Your task to perform on an android device: Go to eBay Image 0: 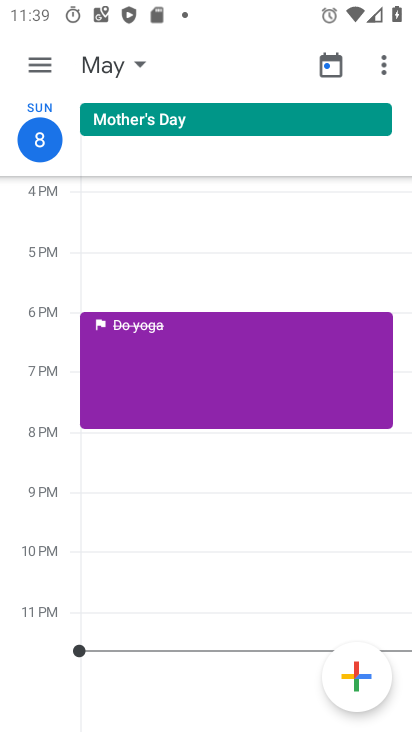
Step 0: press home button
Your task to perform on an android device: Go to eBay Image 1: 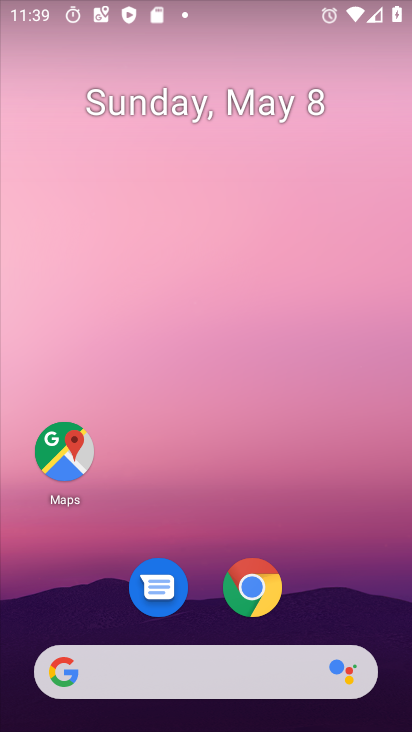
Step 1: drag from (358, 628) to (190, 252)
Your task to perform on an android device: Go to eBay Image 2: 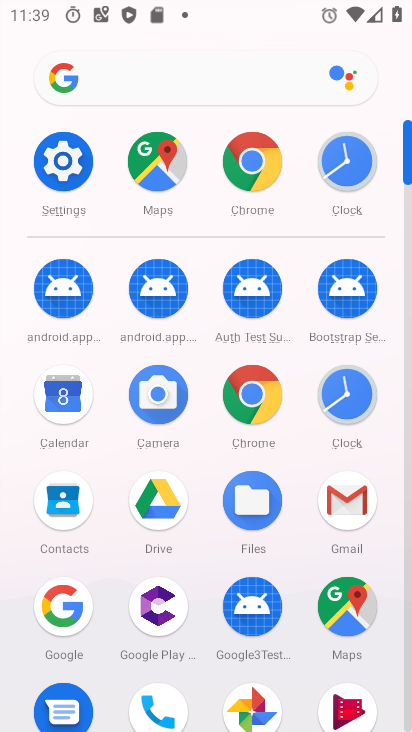
Step 2: click (255, 156)
Your task to perform on an android device: Go to eBay Image 3: 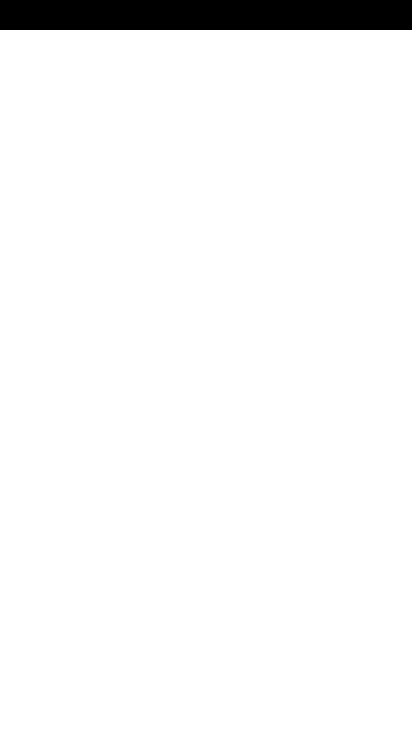
Step 3: click (255, 156)
Your task to perform on an android device: Go to eBay Image 4: 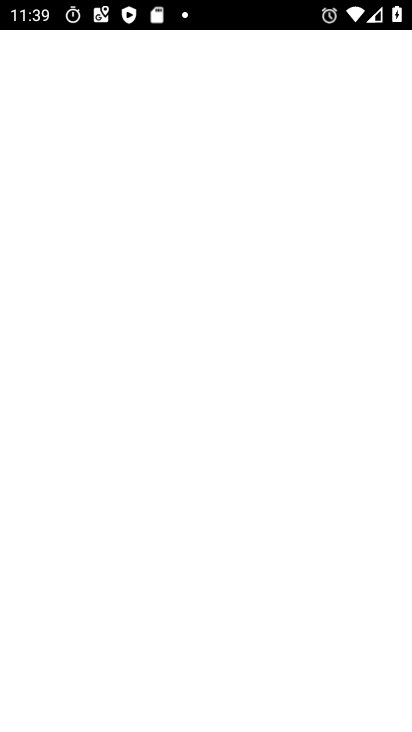
Step 4: click (254, 156)
Your task to perform on an android device: Go to eBay Image 5: 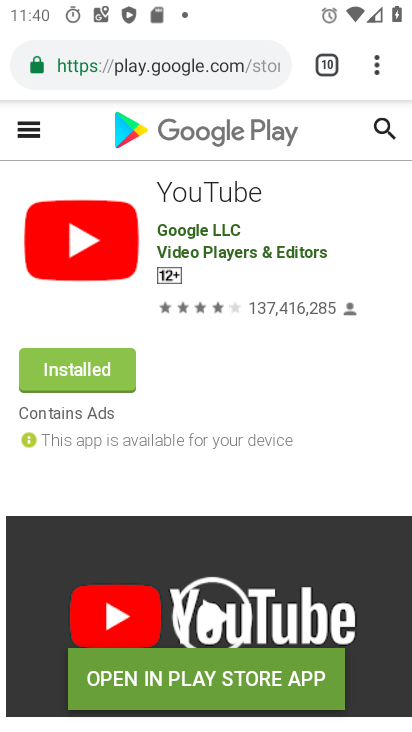
Step 5: drag from (381, 66) to (153, 140)
Your task to perform on an android device: Go to eBay Image 6: 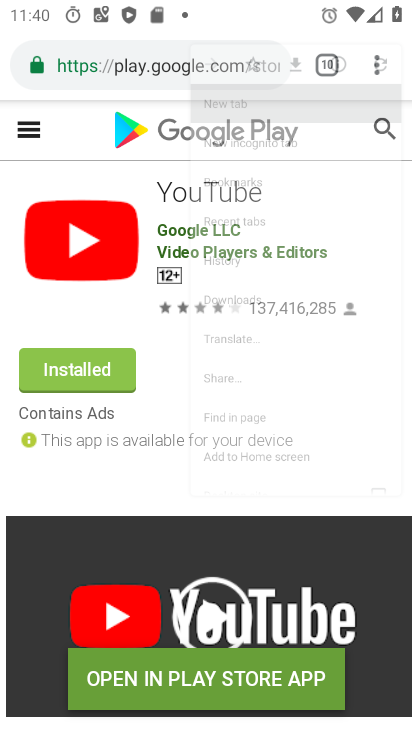
Step 6: click (153, 140)
Your task to perform on an android device: Go to eBay Image 7: 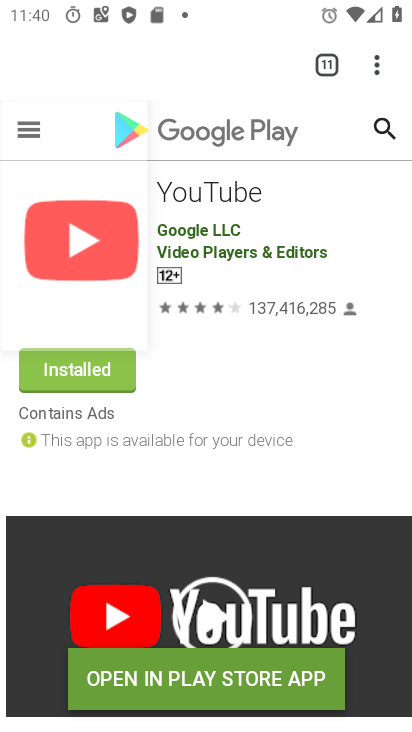
Step 7: click (154, 139)
Your task to perform on an android device: Go to eBay Image 8: 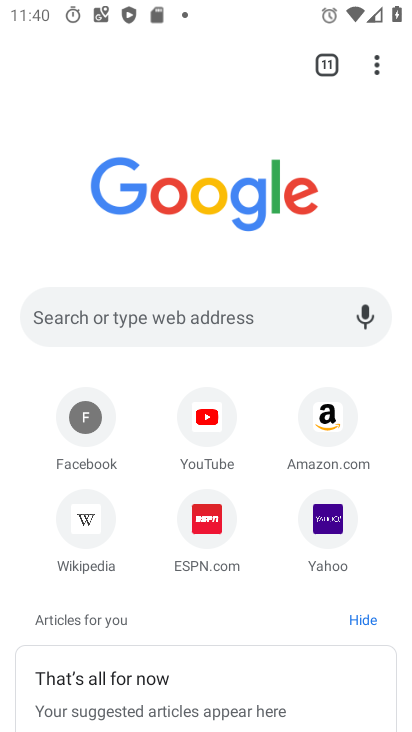
Step 8: click (99, 308)
Your task to perform on an android device: Go to eBay Image 9: 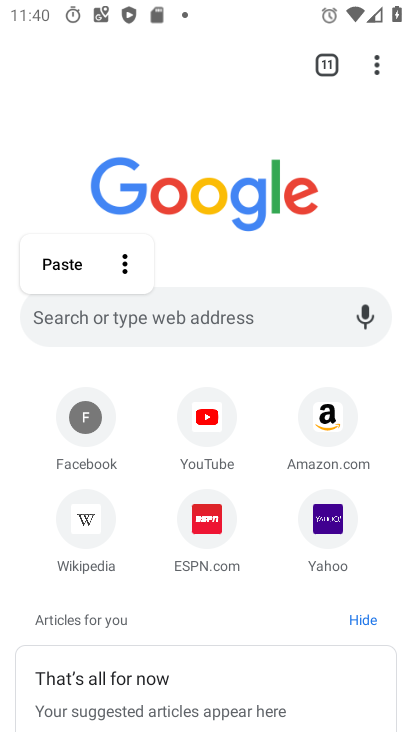
Step 9: type "ebay"
Your task to perform on an android device: Go to eBay Image 10: 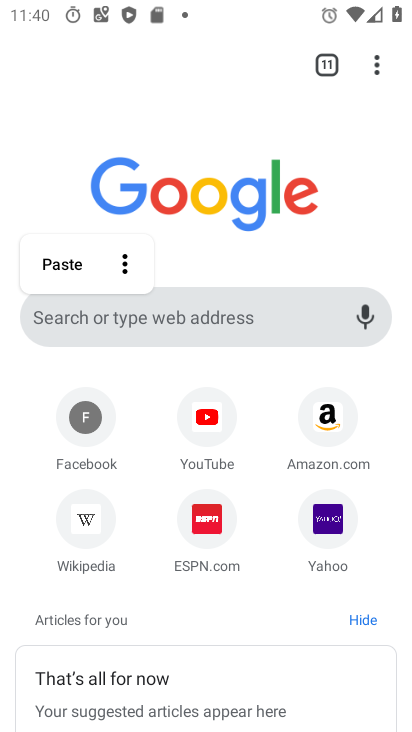
Step 10: click (201, 293)
Your task to perform on an android device: Go to eBay Image 11: 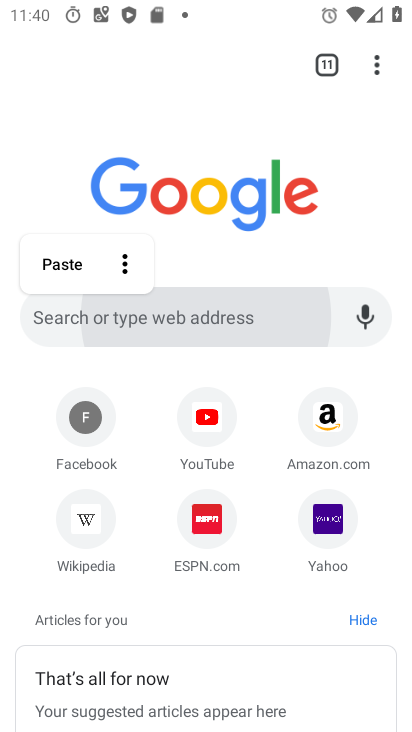
Step 11: click (204, 308)
Your task to perform on an android device: Go to eBay Image 12: 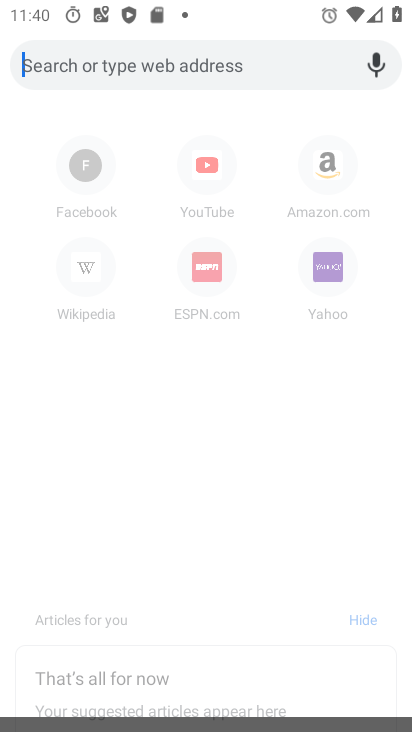
Step 12: click (204, 312)
Your task to perform on an android device: Go to eBay Image 13: 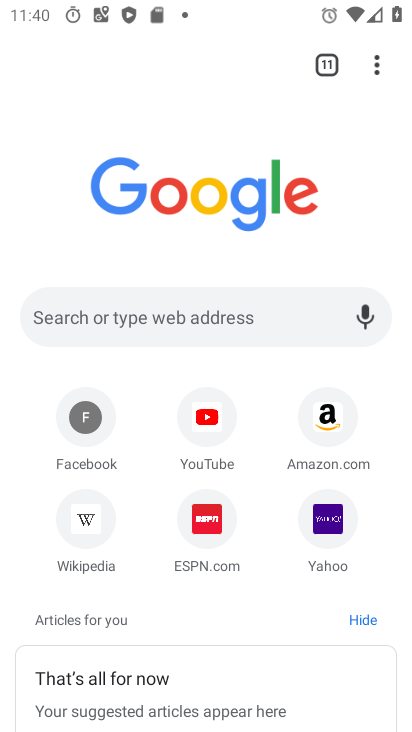
Step 13: click (51, 310)
Your task to perform on an android device: Go to eBay Image 14: 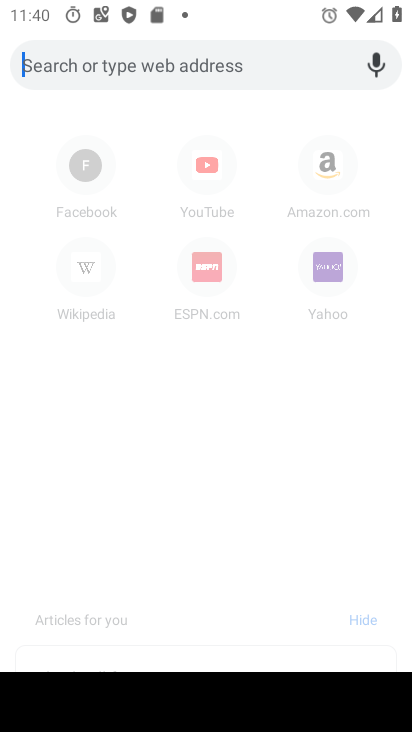
Step 14: type "ebay"
Your task to perform on an android device: Go to eBay Image 15: 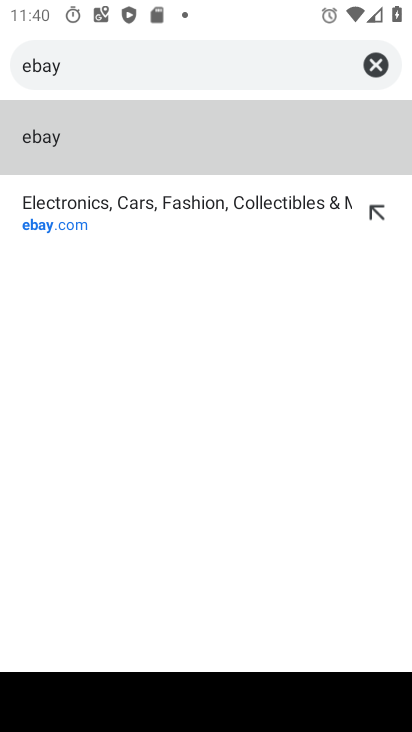
Step 15: click (76, 219)
Your task to perform on an android device: Go to eBay Image 16: 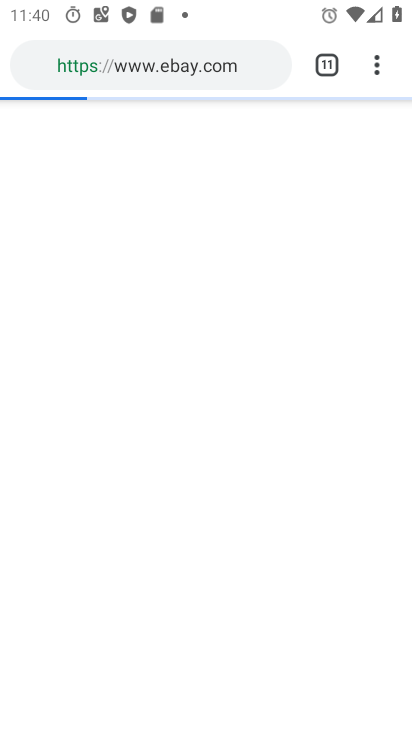
Step 16: click (77, 215)
Your task to perform on an android device: Go to eBay Image 17: 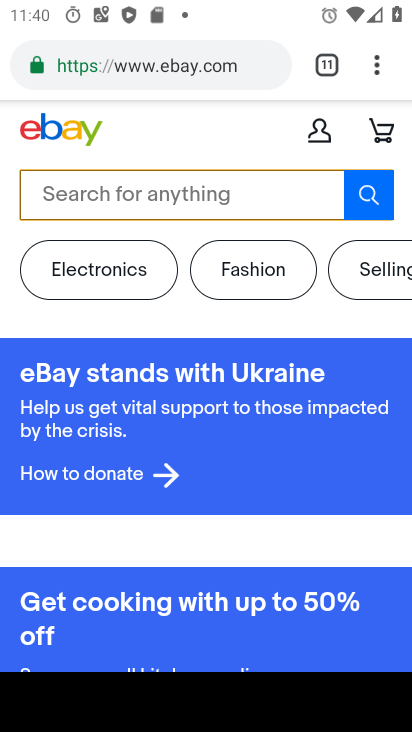
Step 17: task complete